Your task to perform on an android device: Clear the shopping cart on newegg.com. Add "jbl flip 4" to the cart on newegg.com, then select checkout. Image 0: 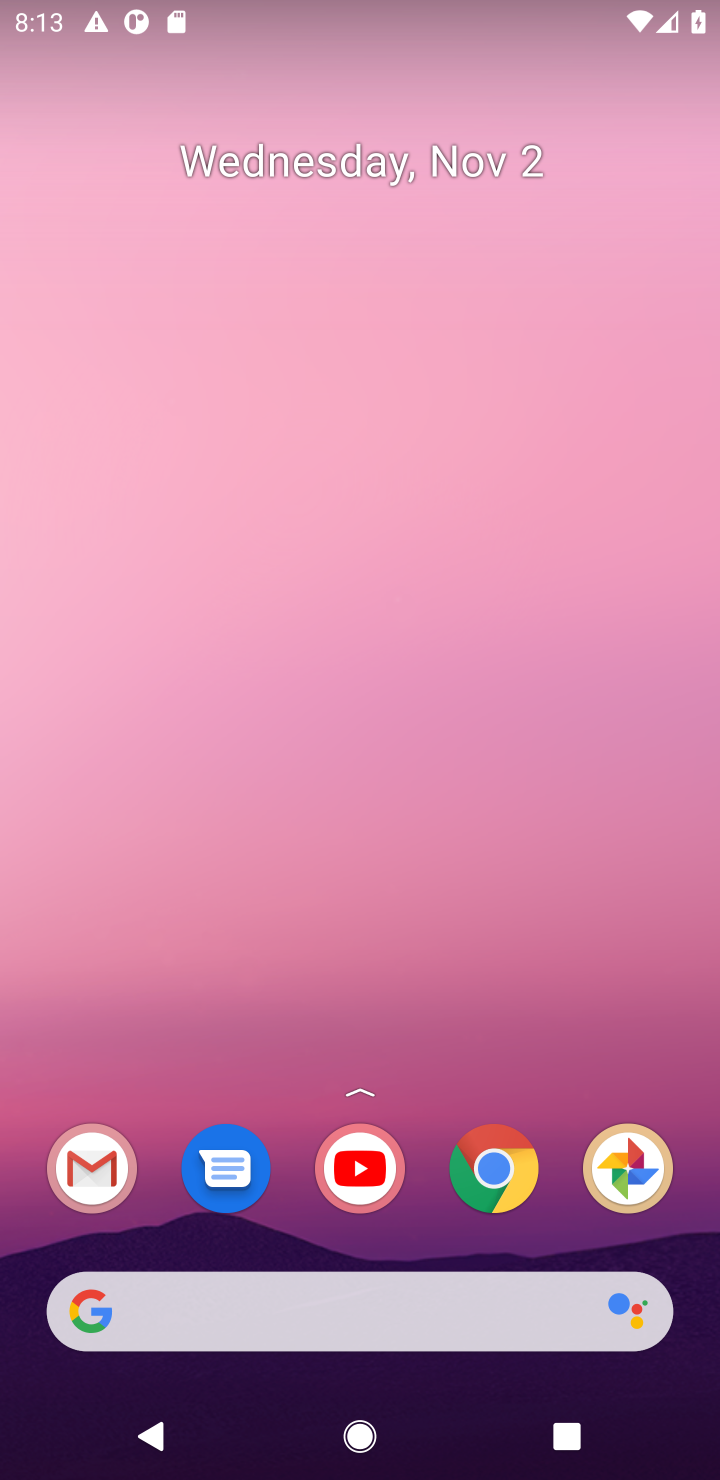
Step 0: click (494, 1171)
Your task to perform on an android device: Clear the shopping cart on newegg.com. Add "jbl flip 4" to the cart on newegg.com, then select checkout. Image 1: 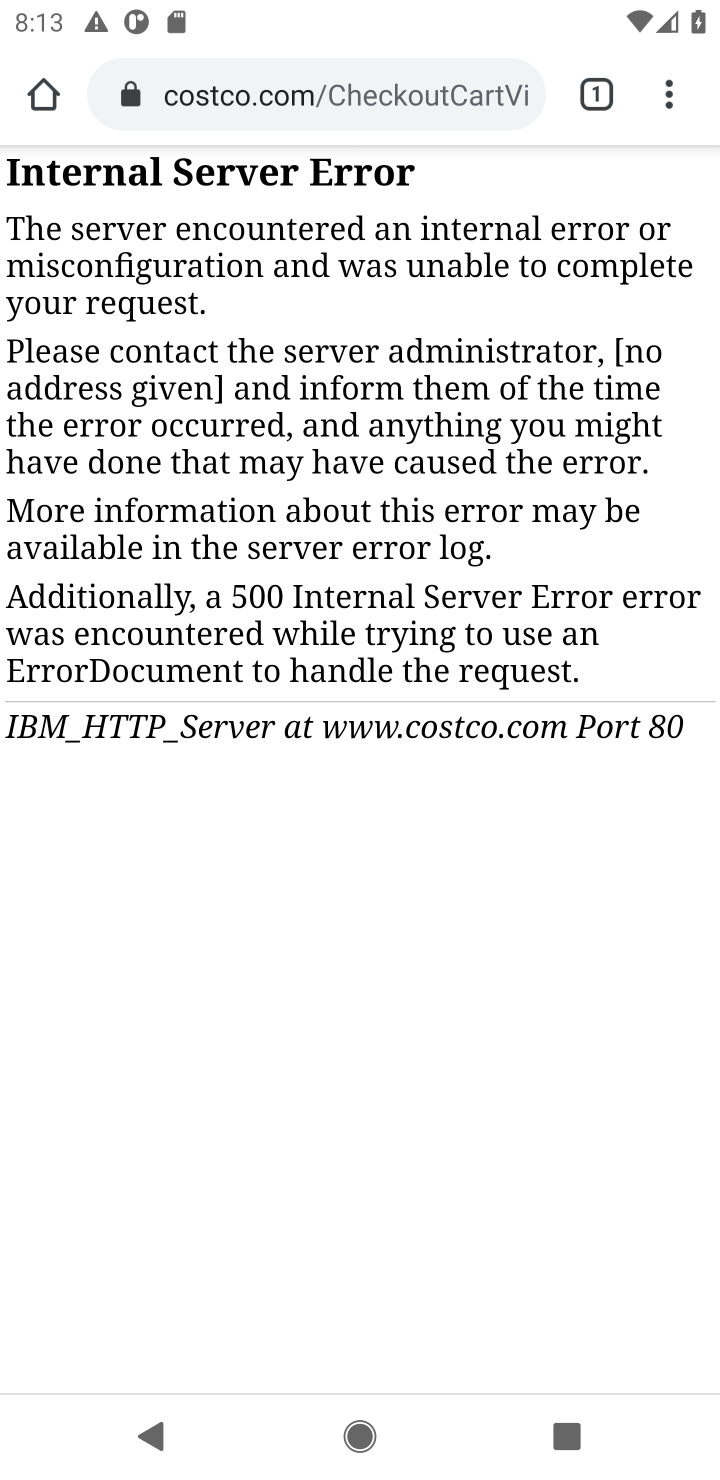
Step 1: click (424, 101)
Your task to perform on an android device: Clear the shopping cart on newegg.com. Add "jbl flip 4" to the cart on newegg.com, then select checkout. Image 2: 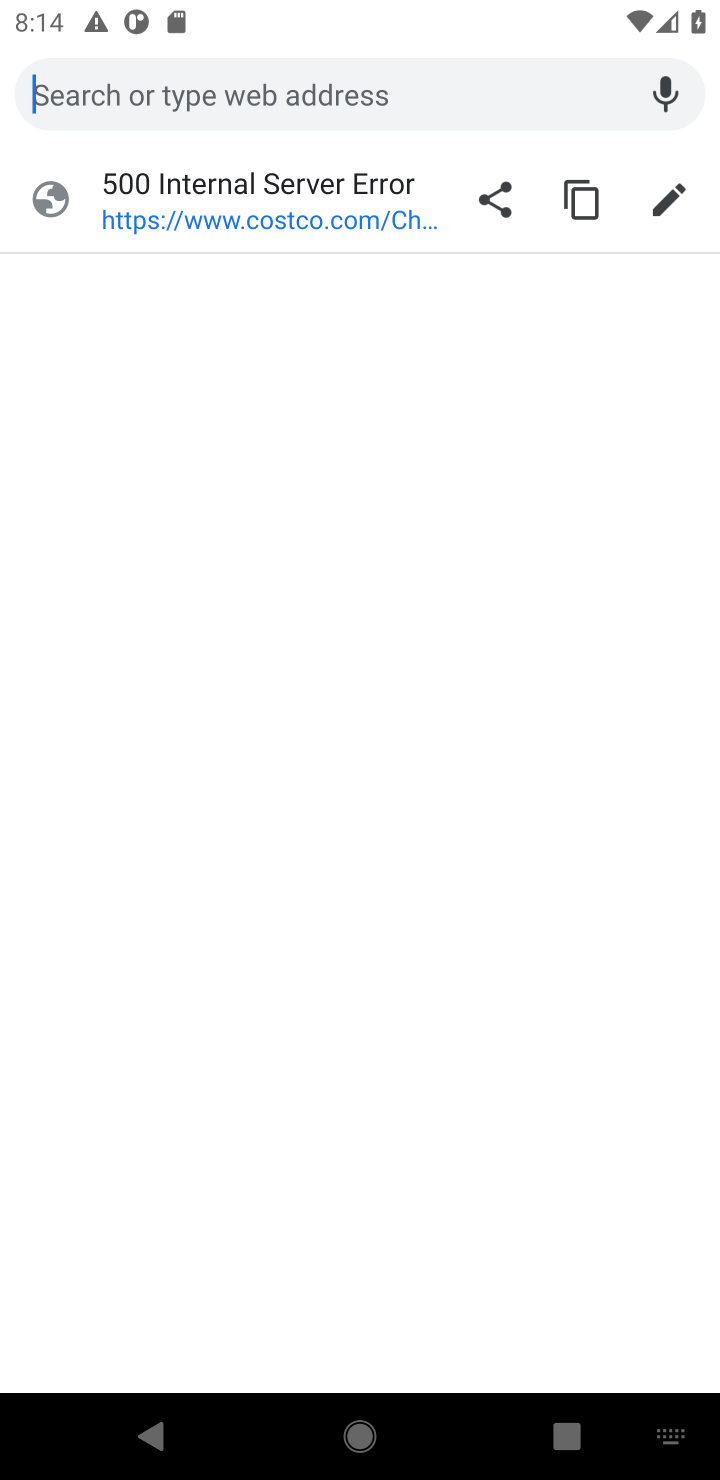
Step 2: type "newegg.com"
Your task to perform on an android device: Clear the shopping cart on newegg.com. Add "jbl flip 4" to the cart on newegg.com, then select checkout. Image 3: 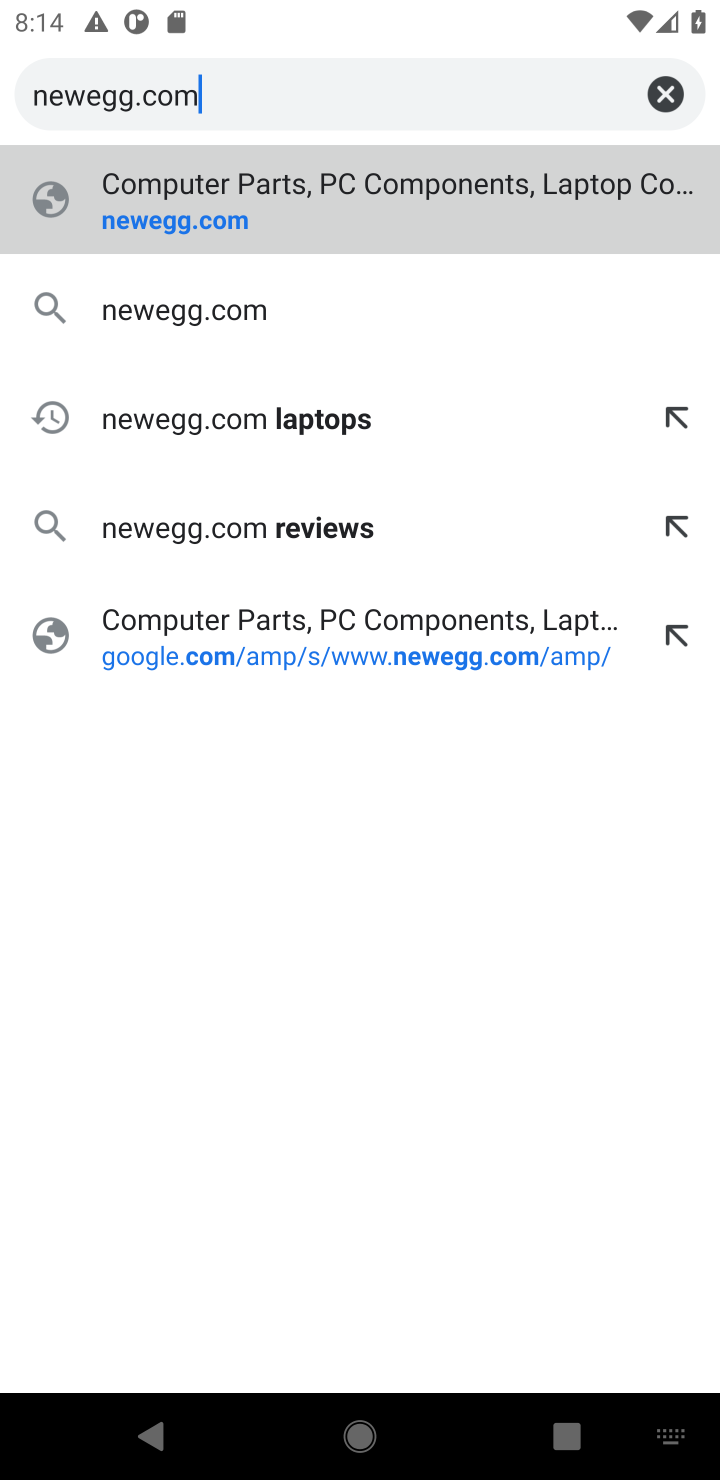
Step 3: click (182, 306)
Your task to perform on an android device: Clear the shopping cart on newegg.com. Add "jbl flip 4" to the cart on newegg.com, then select checkout. Image 4: 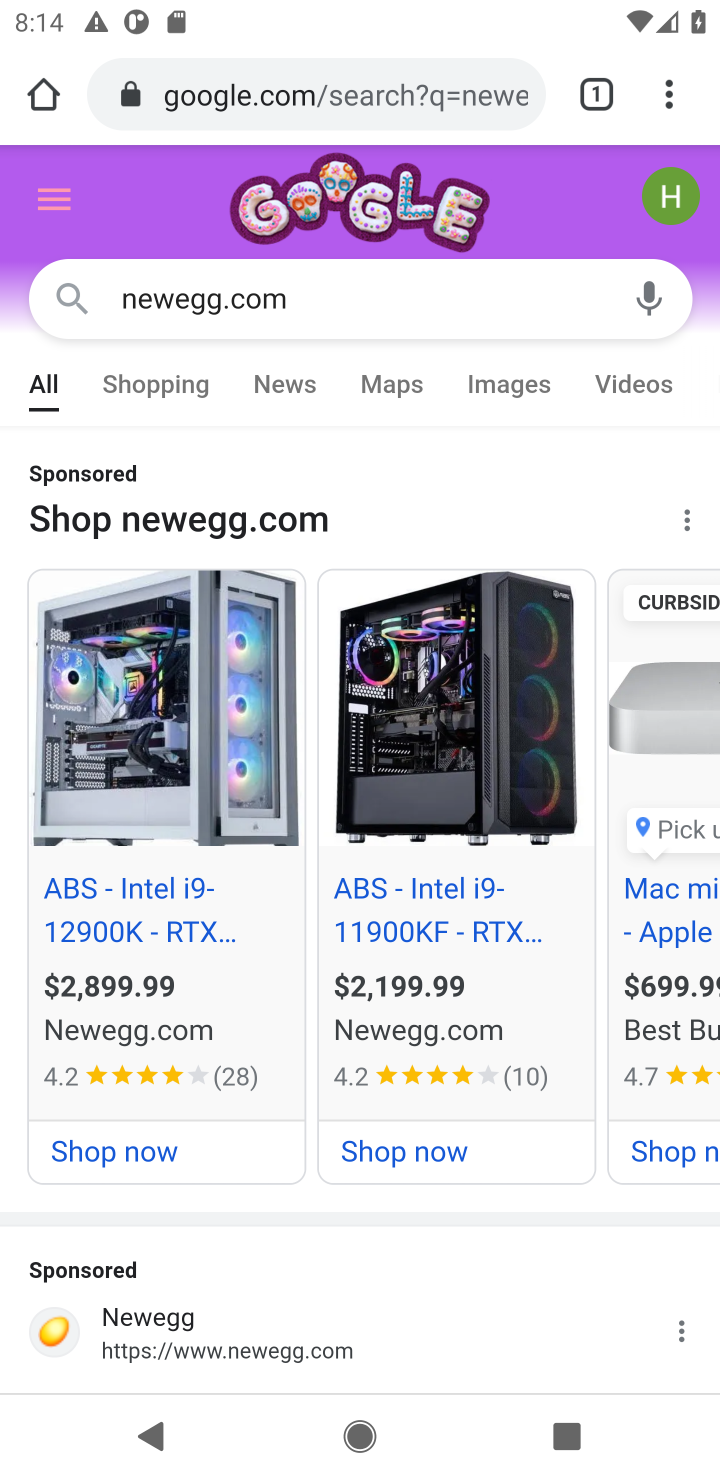
Step 4: click (326, 1356)
Your task to perform on an android device: Clear the shopping cart on newegg.com. Add "jbl flip 4" to the cart on newegg.com, then select checkout. Image 5: 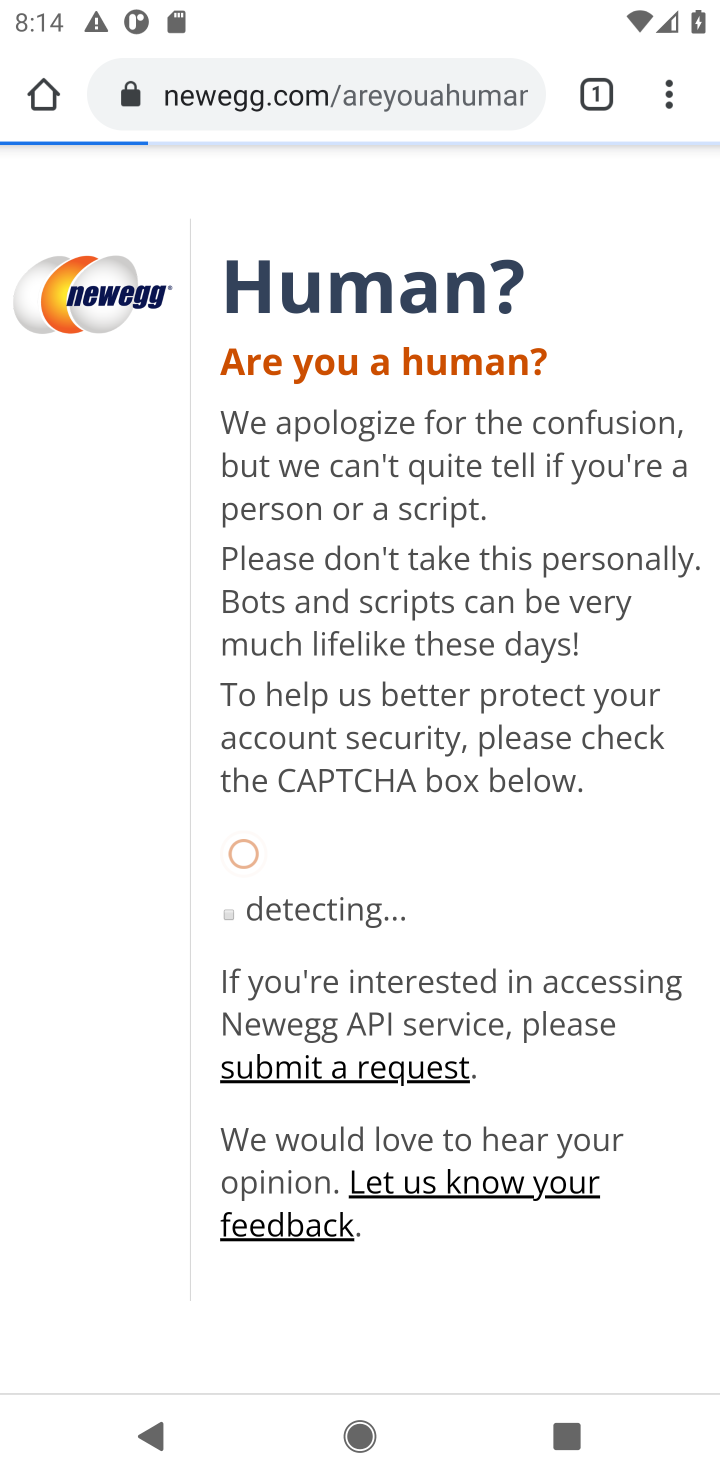
Step 5: press back button
Your task to perform on an android device: Clear the shopping cart on newegg.com. Add "jbl flip 4" to the cart on newegg.com, then select checkout. Image 6: 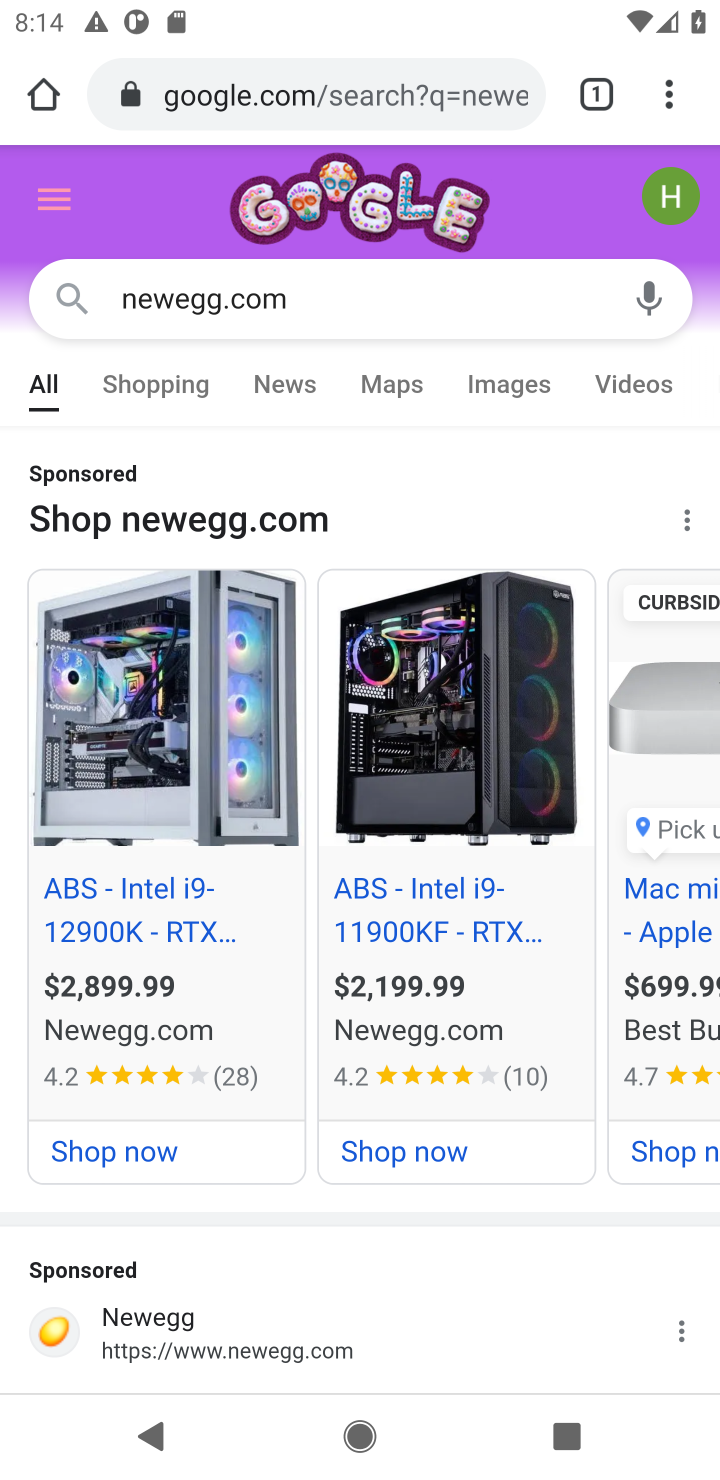
Step 6: drag from (358, 1243) to (374, 467)
Your task to perform on an android device: Clear the shopping cart on newegg.com. Add "jbl flip 4" to the cart on newegg.com, then select checkout. Image 7: 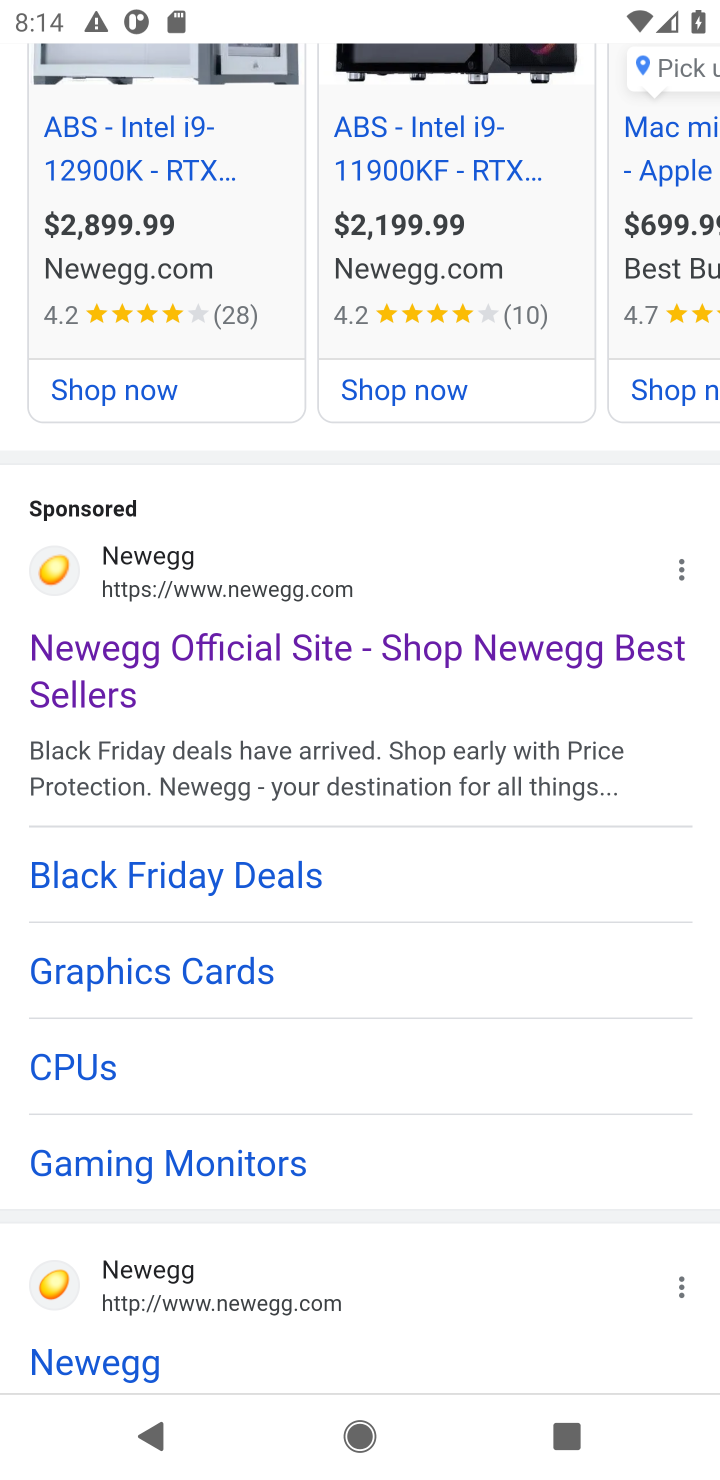
Step 7: drag from (372, 1069) to (398, 429)
Your task to perform on an android device: Clear the shopping cart on newegg.com. Add "jbl flip 4" to the cart on newegg.com, then select checkout. Image 8: 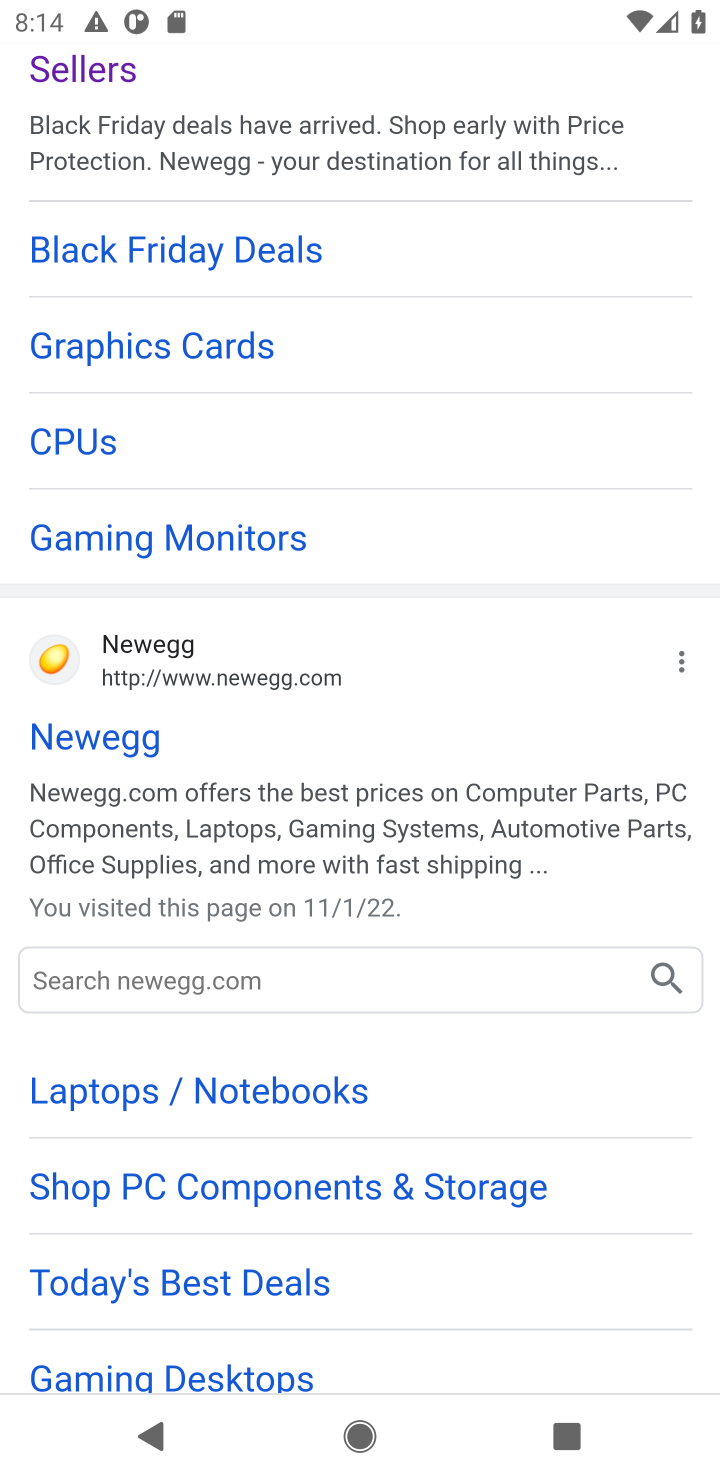
Step 8: click (148, 757)
Your task to perform on an android device: Clear the shopping cart on newegg.com. Add "jbl flip 4" to the cart on newegg.com, then select checkout. Image 9: 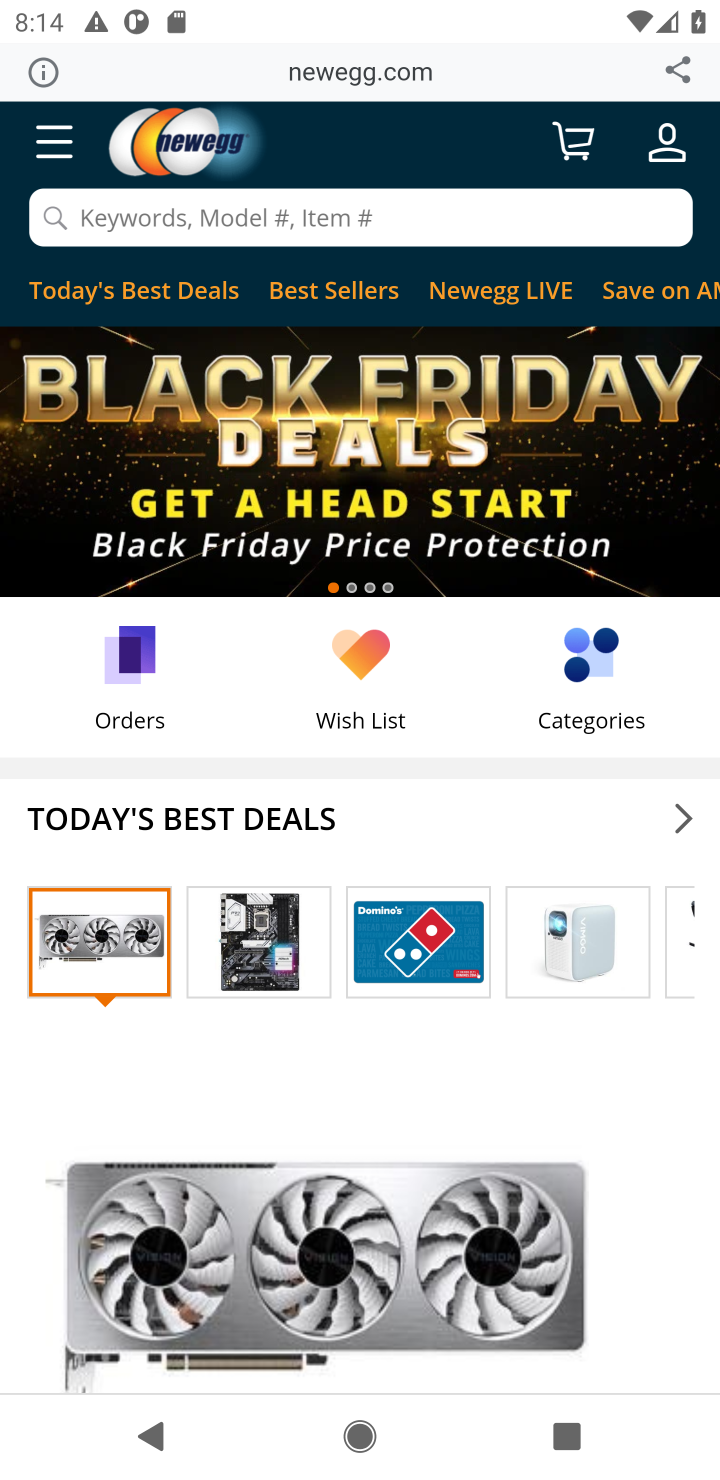
Step 9: click (453, 220)
Your task to perform on an android device: Clear the shopping cart on newegg.com. Add "jbl flip 4" to the cart on newegg.com, then select checkout. Image 10: 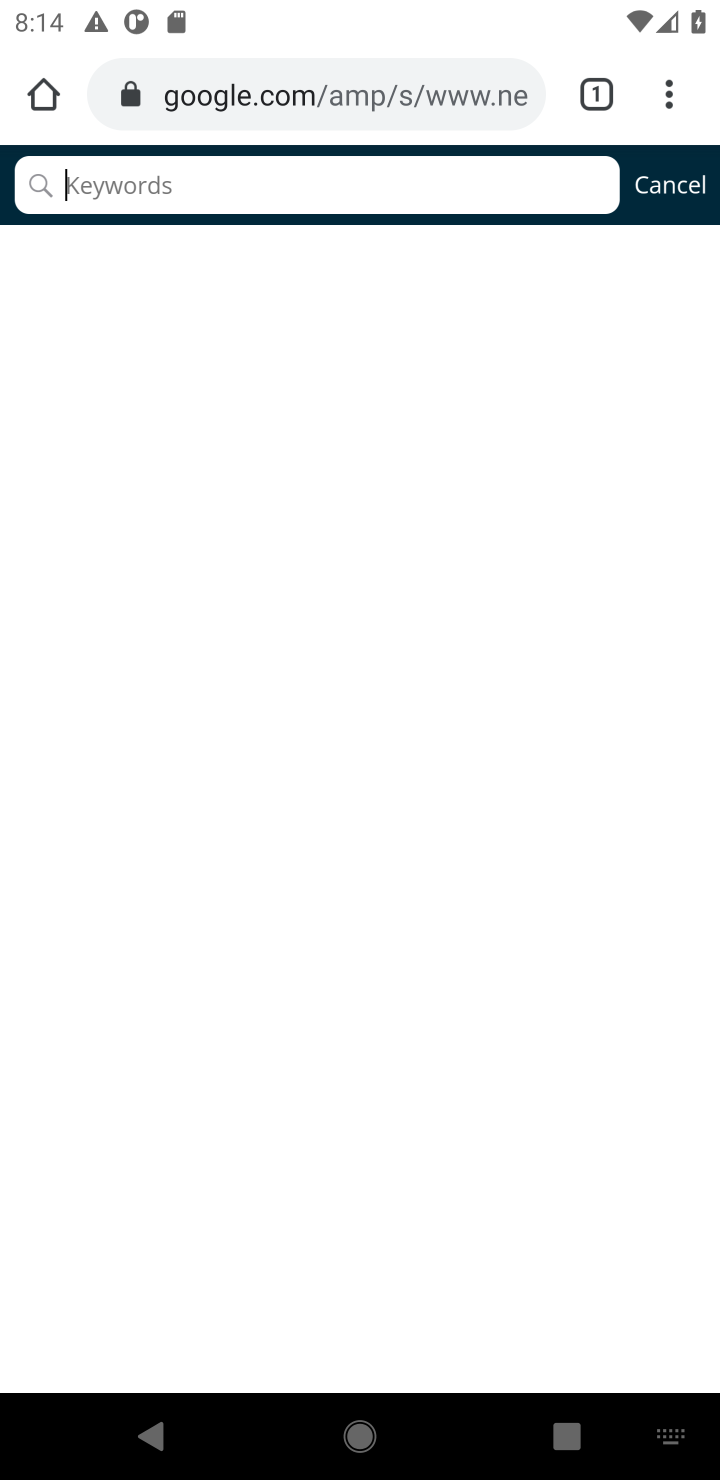
Step 10: press back button
Your task to perform on an android device: Clear the shopping cart on newegg.com. Add "jbl flip 4" to the cart on newegg.com, then select checkout. Image 11: 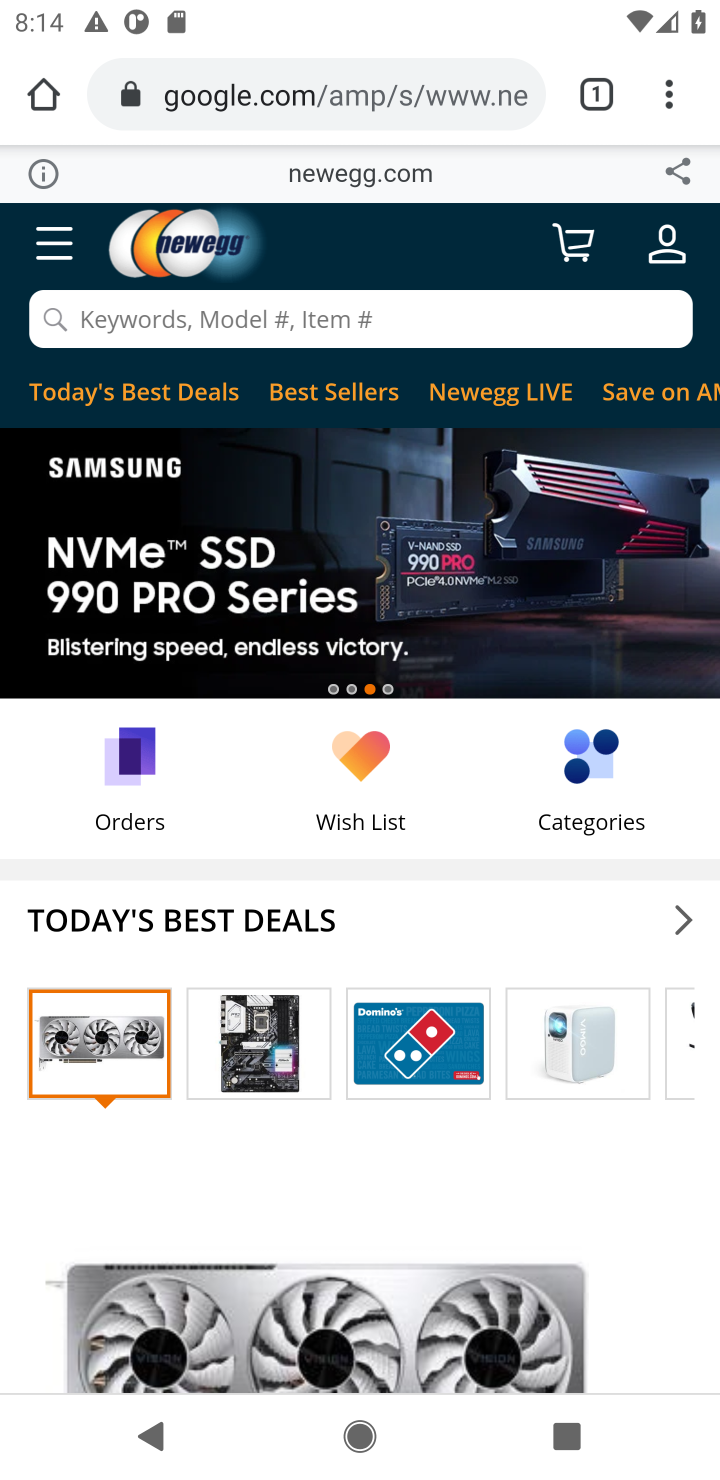
Step 11: click (585, 250)
Your task to perform on an android device: Clear the shopping cart on newegg.com. Add "jbl flip 4" to the cart on newegg.com, then select checkout. Image 12: 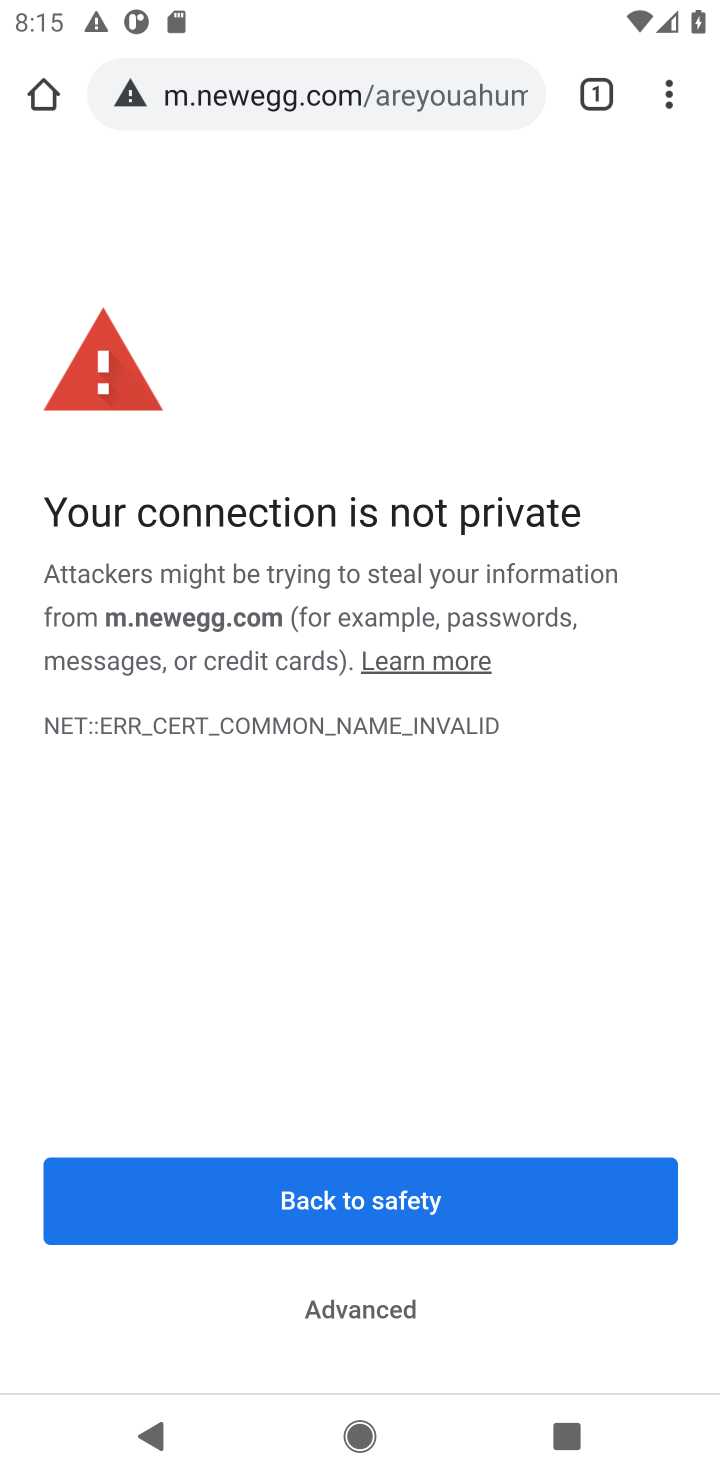
Step 12: press back button
Your task to perform on an android device: Clear the shopping cart on newegg.com. Add "jbl flip 4" to the cart on newegg.com, then select checkout. Image 13: 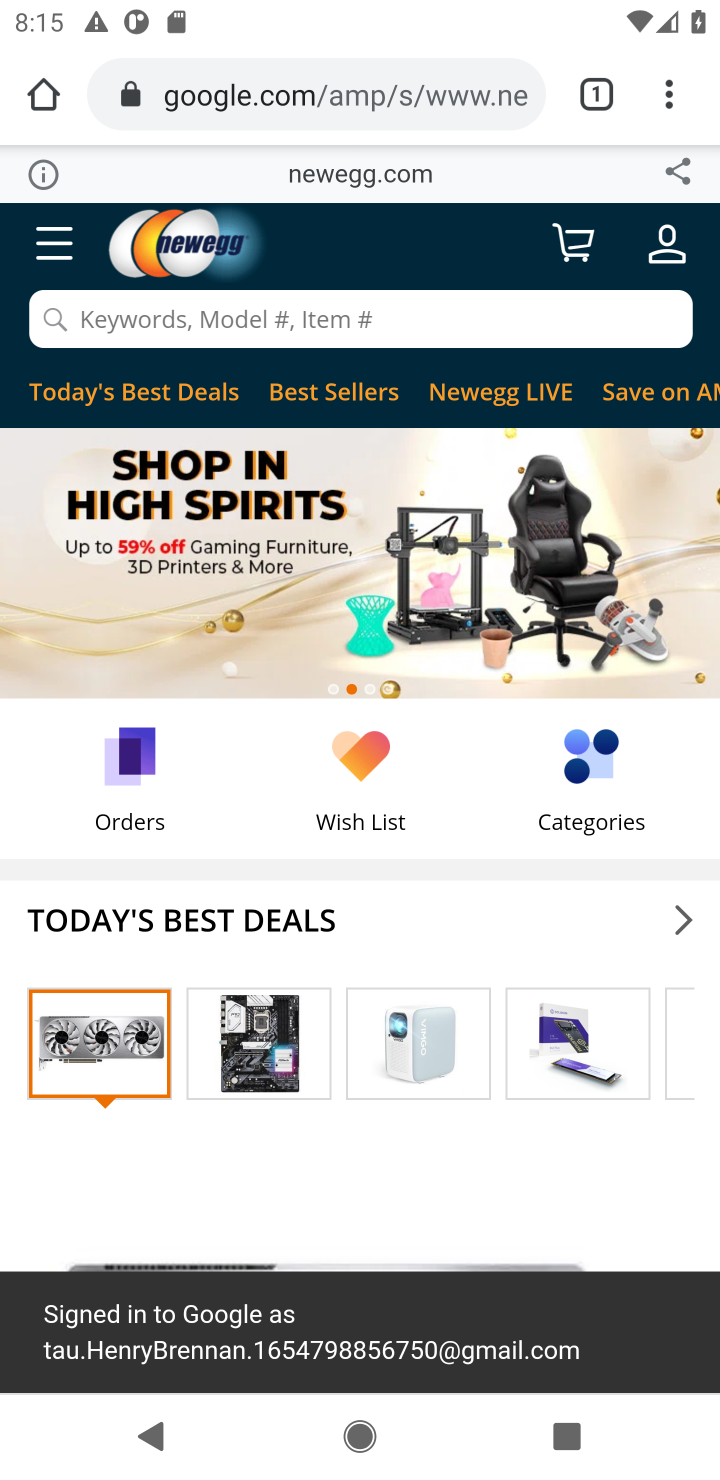
Step 13: click (577, 244)
Your task to perform on an android device: Clear the shopping cart on newegg.com. Add "jbl flip 4" to the cart on newegg.com, then select checkout. Image 14: 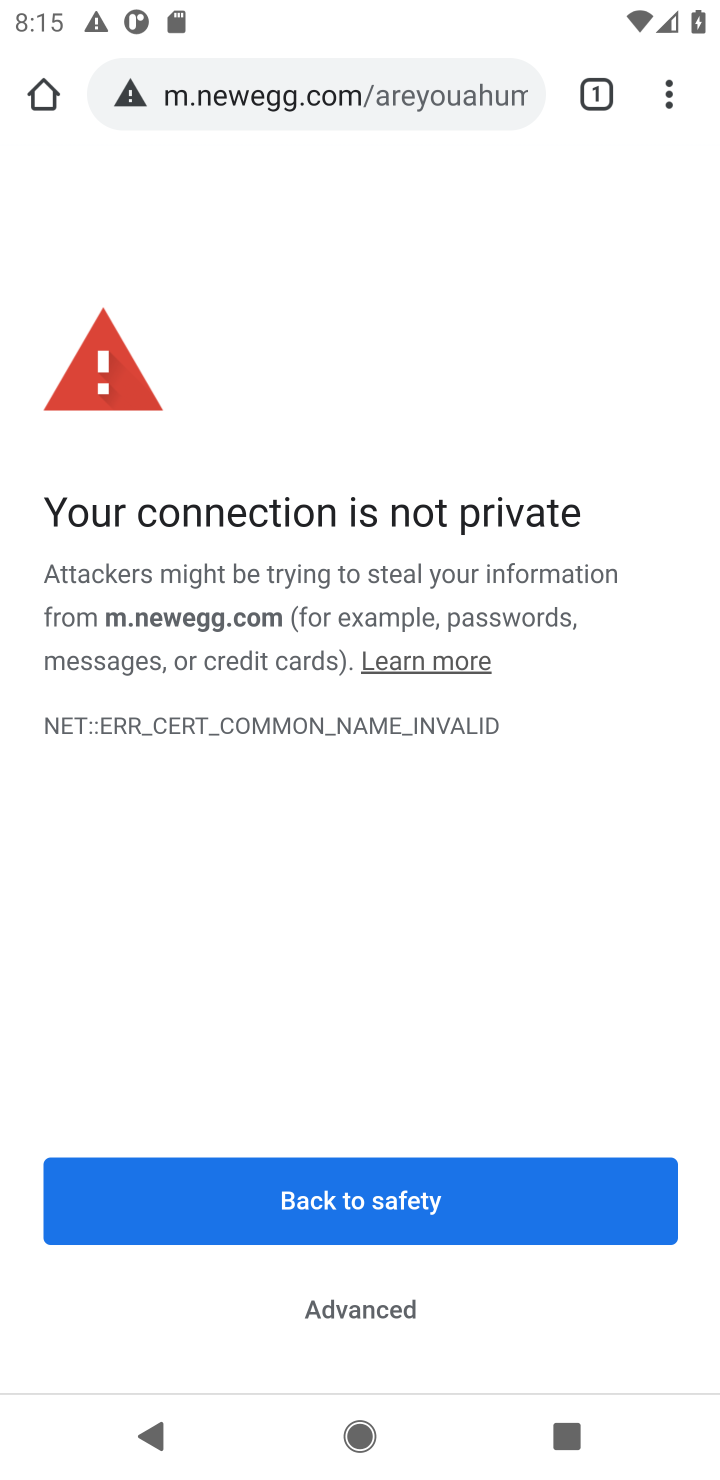
Step 14: task complete